Your task to perform on an android device: check battery use Image 0: 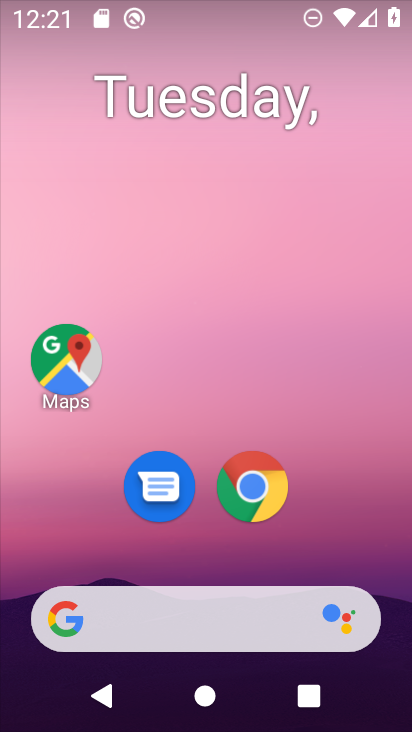
Step 0: drag from (197, 563) to (247, 182)
Your task to perform on an android device: check battery use Image 1: 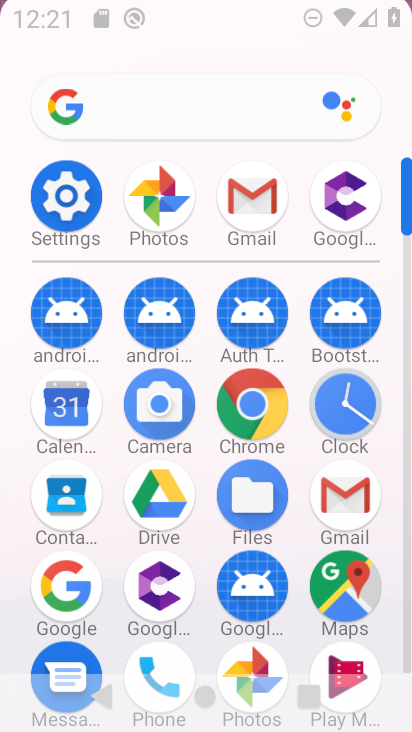
Step 1: drag from (197, 549) to (224, 237)
Your task to perform on an android device: check battery use Image 2: 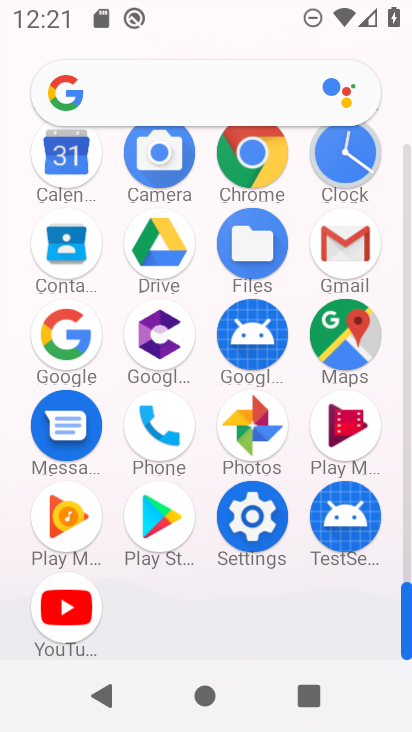
Step 2: click (256, 541)
Your task to perform on an android device: check battery use Image 3: 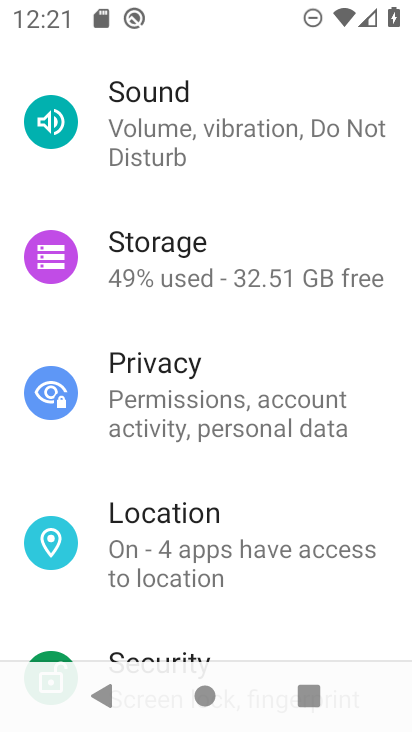
Step 3: drag from (212, 198) to (224, 505)
Your task to perform on an android device: check battery use Image 4: 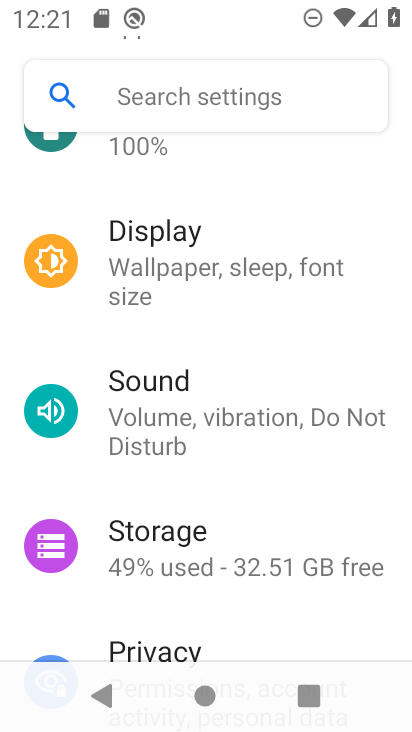
Step 4: drag from (183, 293) to (174, 515)
Your task to perform on an android device: check battery use Image 5: 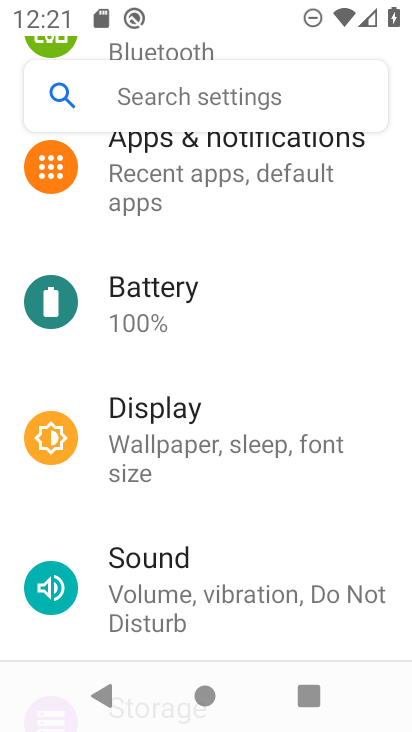
Step 5: click (176, 318)
Your task to perform on an android device: check battery use Image 6: 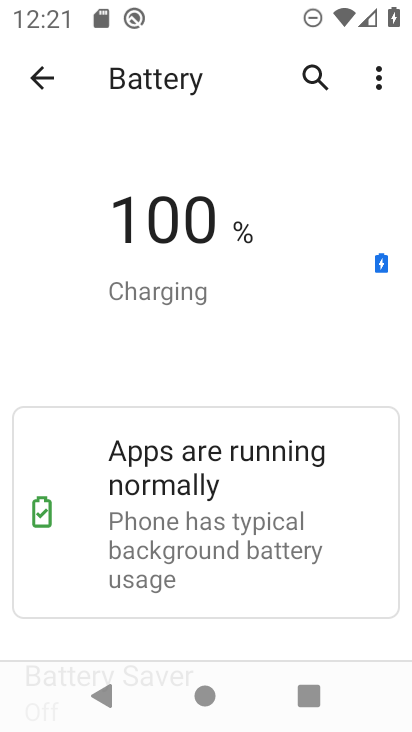
Step 6: click (378, 81)
Your task to perform on an android device: check battery use Image 7: 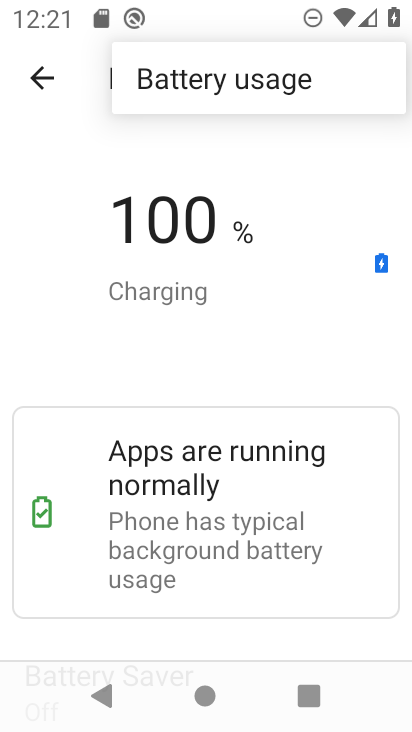
Step 7: click (298, 92)
Your task to perform on an android device: check battery use Image 8: 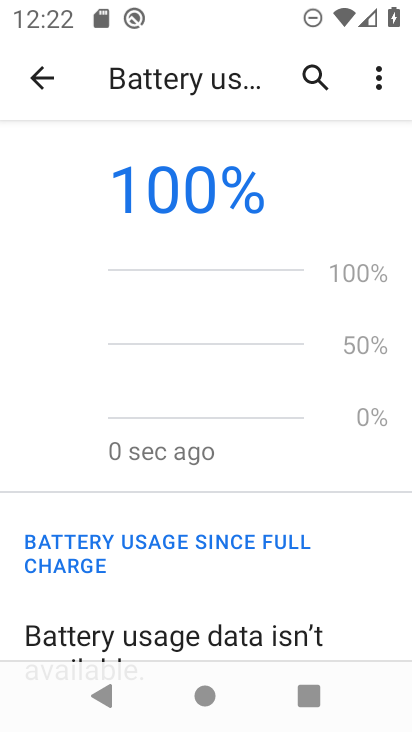
Step 8: task complete